Your task to perform on an android device: Go to battery settings Image 0: 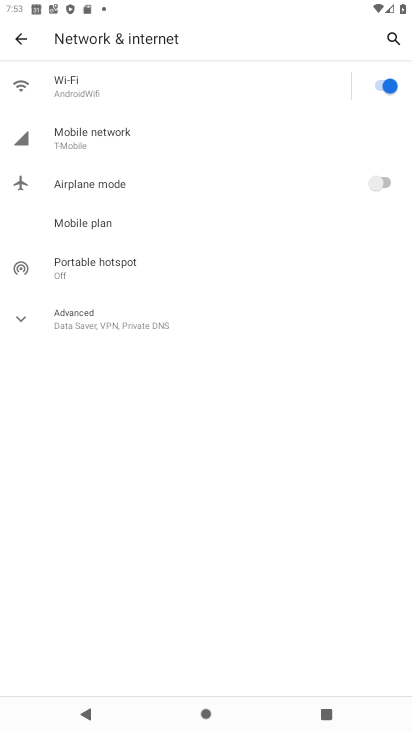
Step 0: press home button
Your task to perform on an android device: Go to battery settings Image 1: 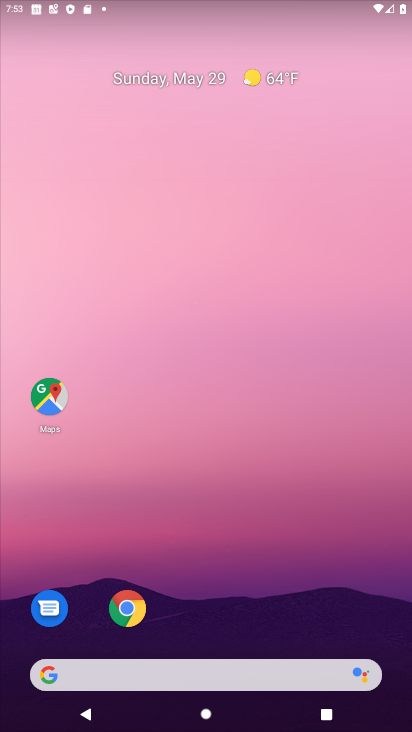
Step 1: drag from (259, 526) to (237, 91)
Your task to perform on an android device: Go to battery settings Image 2: 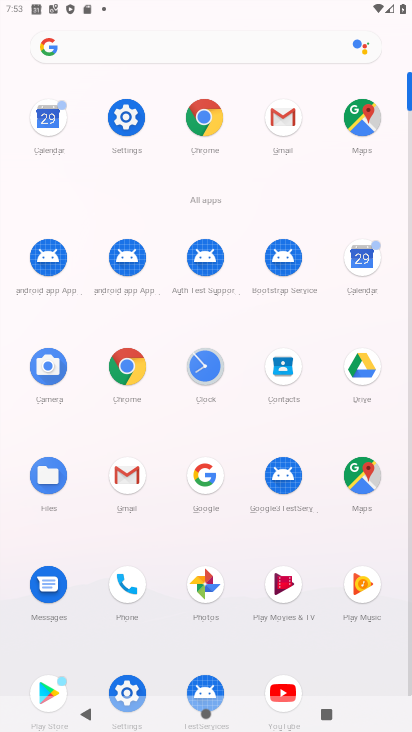
Step 2: click (125, 117)
Your task to perform on an android device: Go to battery settings Image 3: 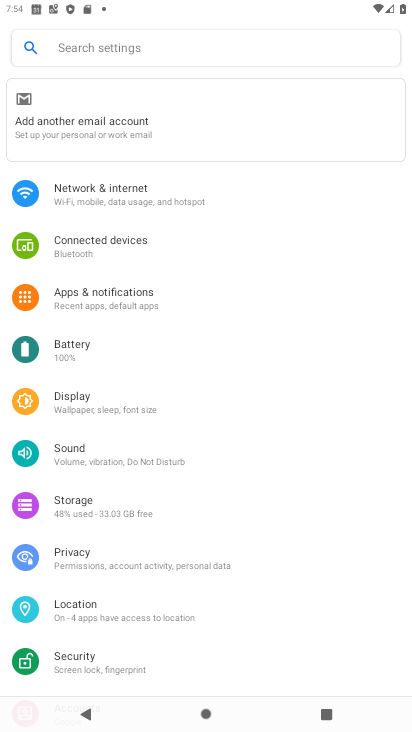
Step 3: click (67, 344)
Your task to perform on an android device: Go to battery settings Image 4: 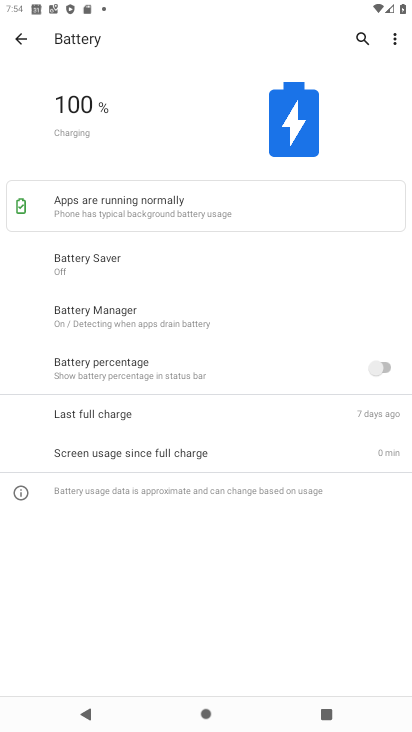
Step 4: task complete